Your task to perform on an android device: visit the assistant section in the google photos Image 0: 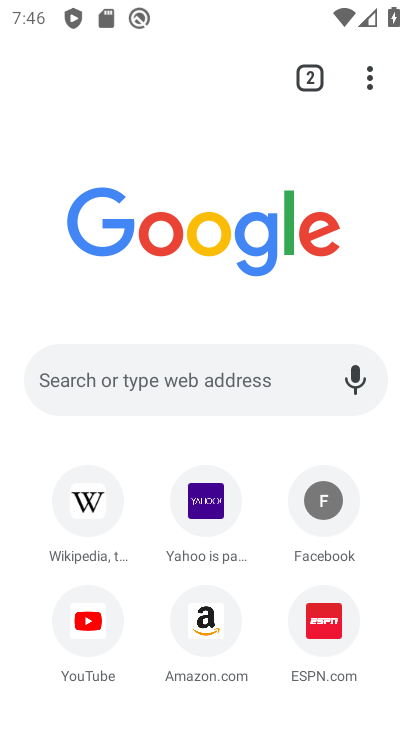
Step 0: press back button
Your task to perform on an android device: visit the assistant section in the google photos Image 1: 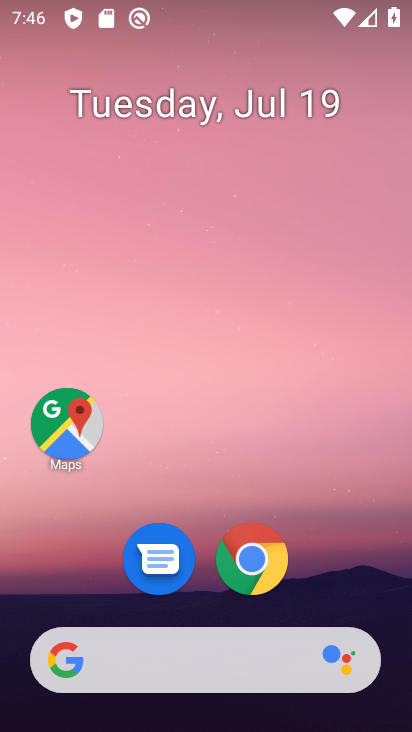
Step 1: drag from (93, 599) to (253, 13)
Your task to perform on an android device: visit the assistant section in the google photos Image 2: 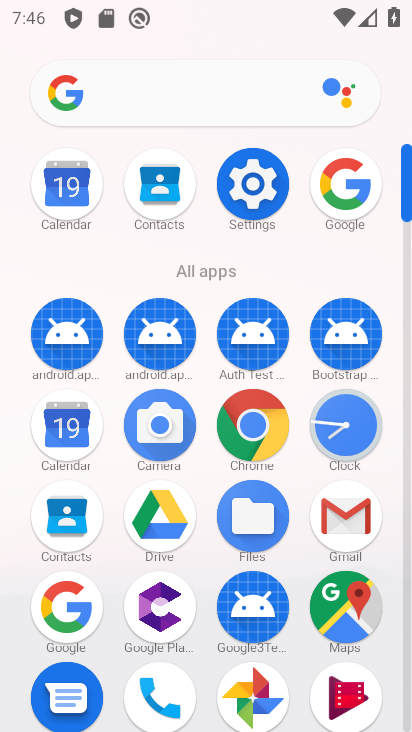
Step 2: click (246, 690)
Your task to perform on an android device: visit the assistant section in the google photos Image 3: 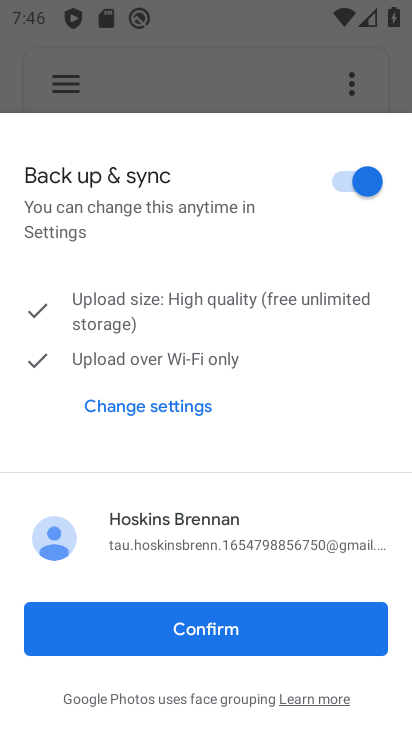
Step 3: click (231, 641)
Your task to perform on an android device: visit the assistant section in the google photos Image 4: 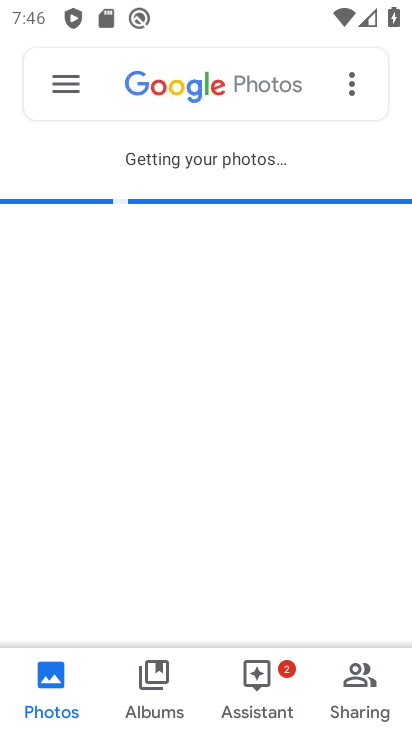
Step 4: click (240, 662)
Your task to perform on an android device: visit the assistant section in the google photos Image 5: 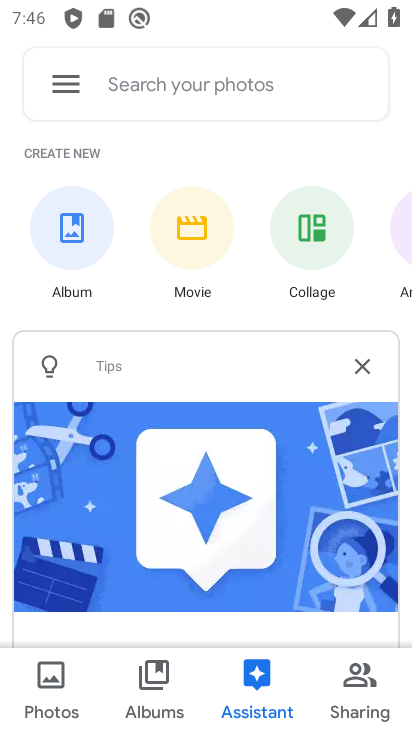
Step 5: task complete